Your task to perform on an android device: add a label to a message in the gmail app Image 0: 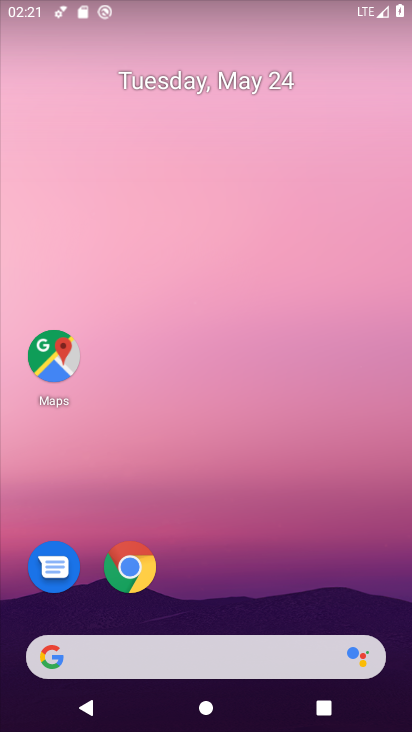
Step 0: drag from (251, 614) to (342, 167)
Your task to perform on an android device: add a label to a message in the gmail app Image 1: 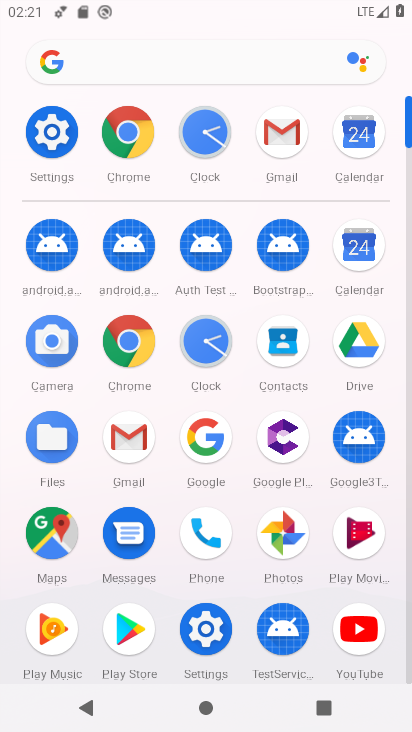
Step 1: click (139, 438)
Your task to perform on an android device: add a label to a message in the gmail app Image 2: 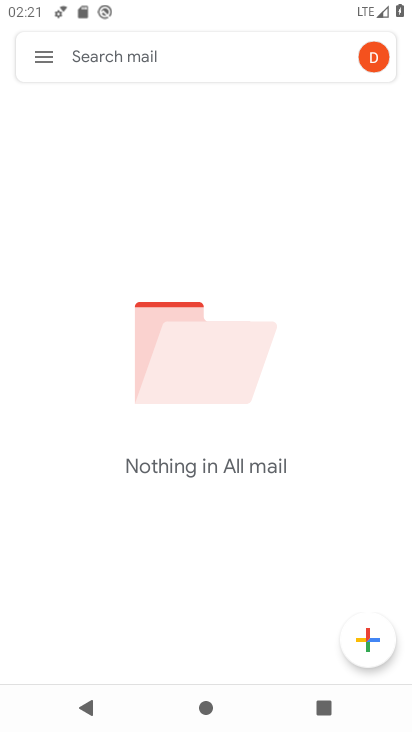
Step 2: click (51, 56)
Your task to perform on an android device: add a label to a message in the gmail app Image 3: 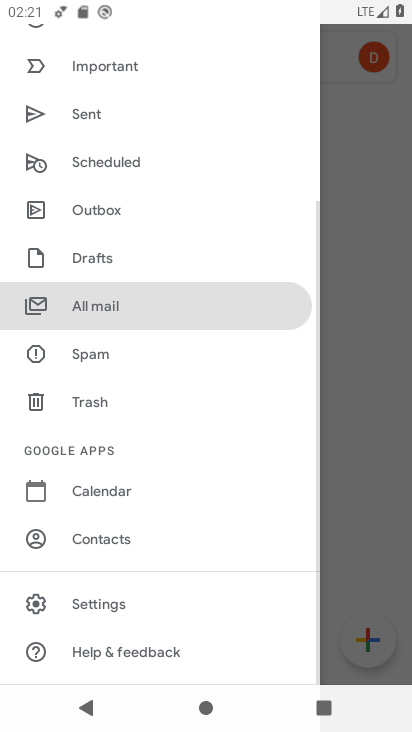
Step 3: click (144, 302)
Your task to perform on an android device: add a label to a message in the gmail app Image 4: 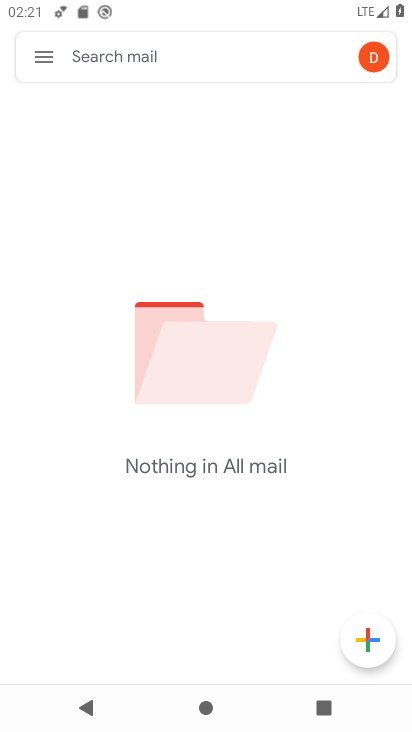
Step 4: task complete